Your task to perform on an android device: Go to settings Image 0: 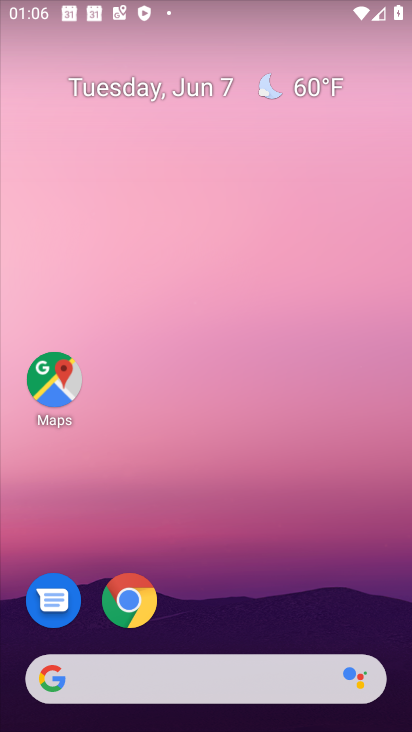
Step 0: drag from (194, 697) to (194, 145)
Your task to perform on an android device: Go to settings Image 1: 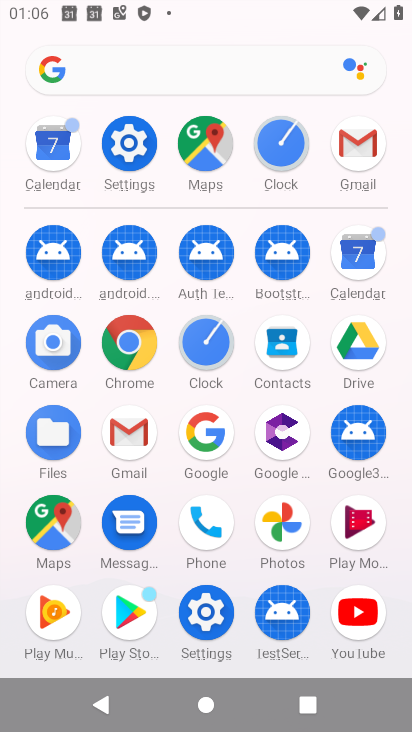
Step 1: click (126, 152)
Your task to perform on an android device: Go to settings Image 2: 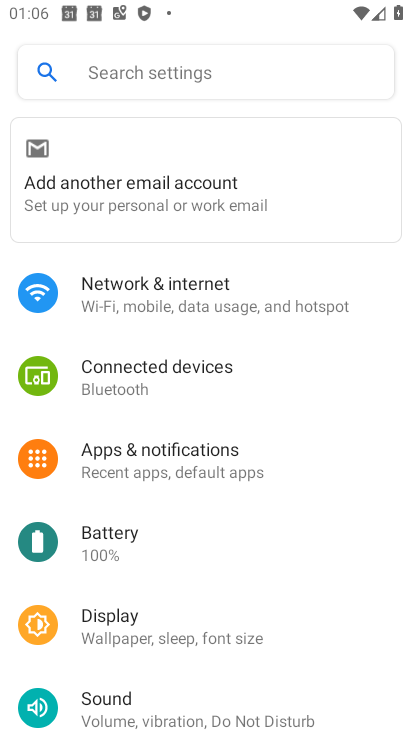
Step 2: task complete